Your task to perform on an android device: stop showing notifications on the lock screen Image 0: 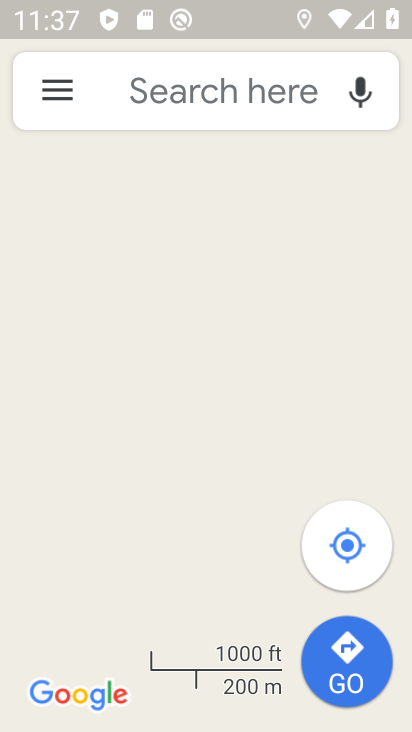
Step 0: press home button
Your task to perform on an android device: stop showing notifications on the lock screen Image 1: 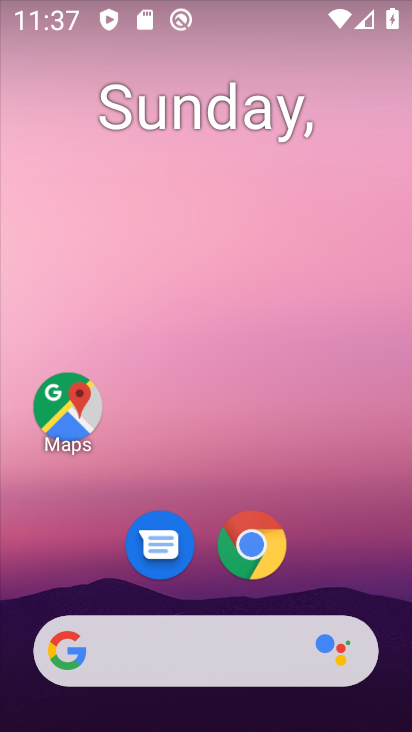
Step 1: drag from (362, 570) to (368, 126)
Your task to perform on an android device: stop showing notifications on the lock screen Image 2: 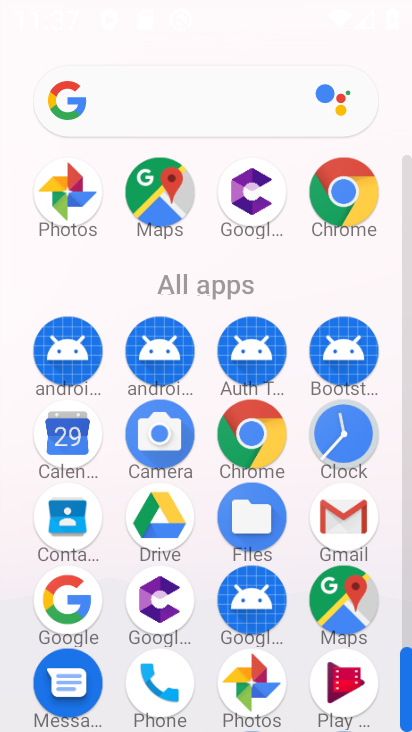
Step 2: drag from (203, 529) to (202, 248)
Your task to perform on an android device: stop showing notifications on the lock screen Image 3: 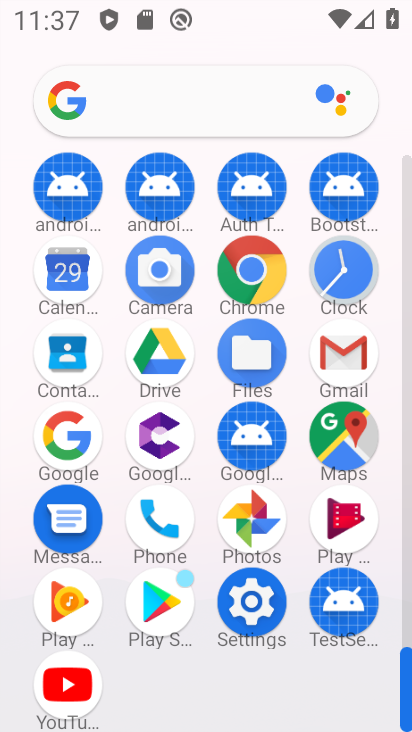
Step 3: click (254, 621)
Your task to perform on an android device: stop showing notifications on the lock screen Image 4: 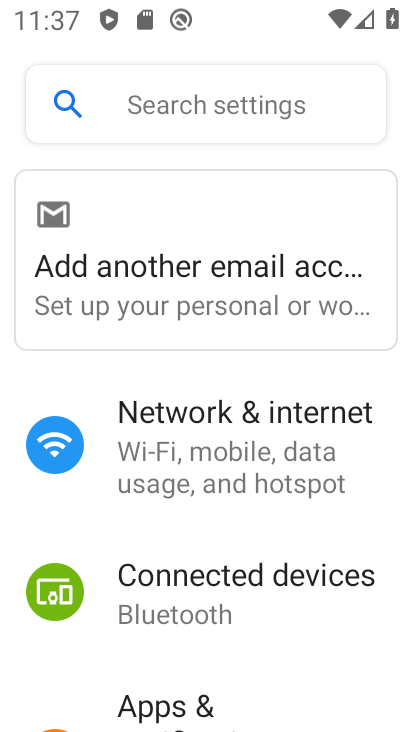
Step 4: drag from (281, 645) to (280, 463)
Your task to perform on an android device: stop showing notifications on the lock screen Image 5: 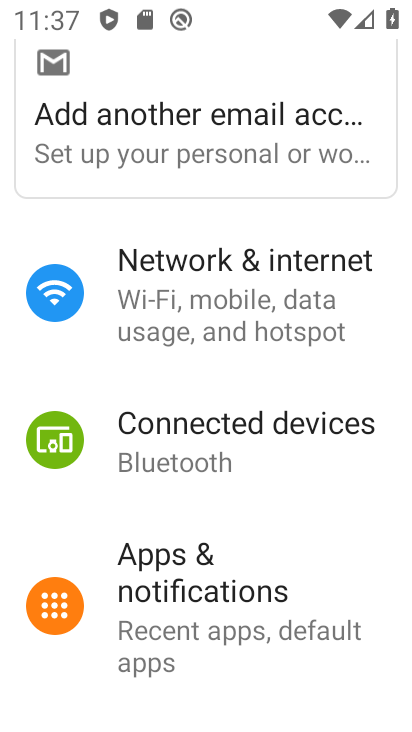
Step 5: drag from (297, 583) to (313, 434)
Your task to perform on an android device: stop showing notifications on the lock screen Image 6: 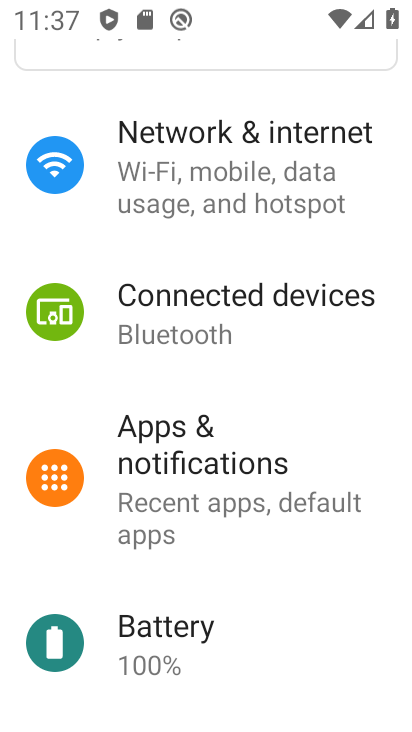
Step 6: click (299, 491)
Your task to perform on an android device: stop showing notifications on the lock screen Image 7: 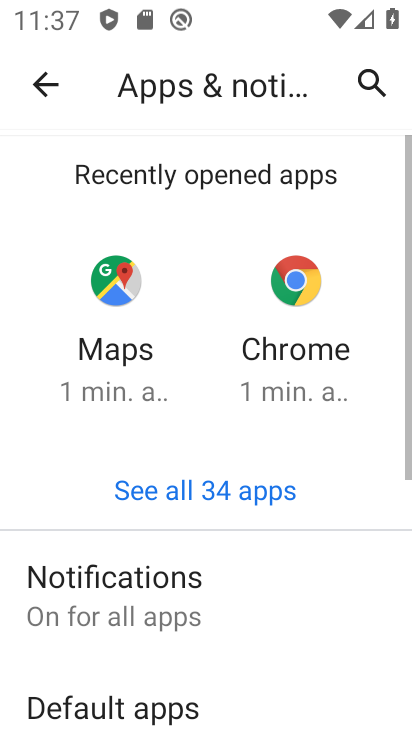
Step 7: drag from (312, 581) to (304, 287)
Your task to perform on an android device: stop showing notifications on the lock screen Image 8: 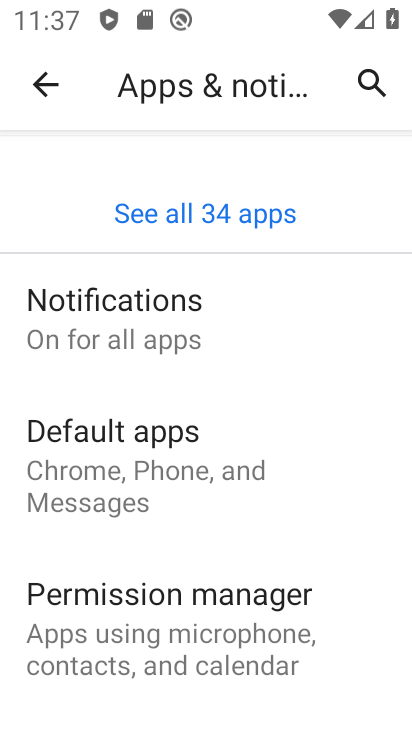
Step 8: drag from (334, 489) to (341, 329)
Your task to perform on an android device: stop showing notifications on the lock screen Image 9: 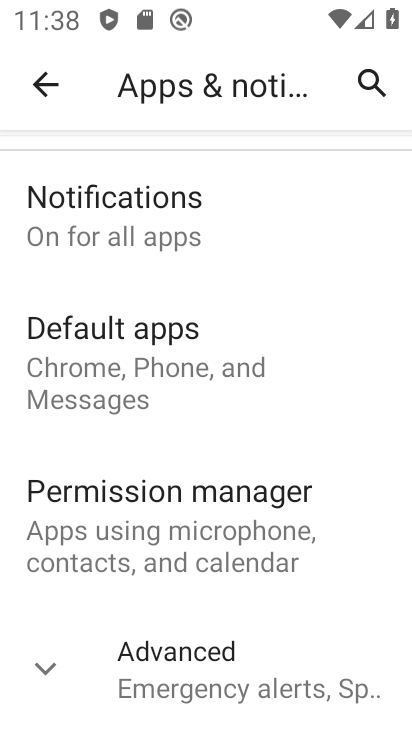
Step 9: click (178, 227)
Your task to perform on an android device: stop showing notifications on the lock screen Image 10: 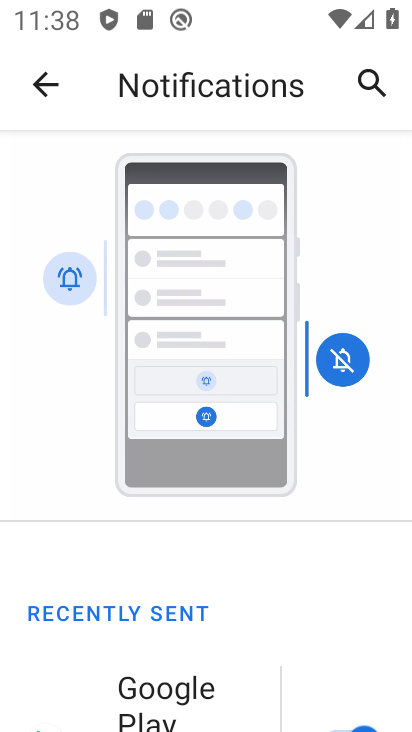
Step 10: drag from (282, 578) to (271, 365)
Your task to perform on an android device: stop showing notifications on the lock screen Image 11: 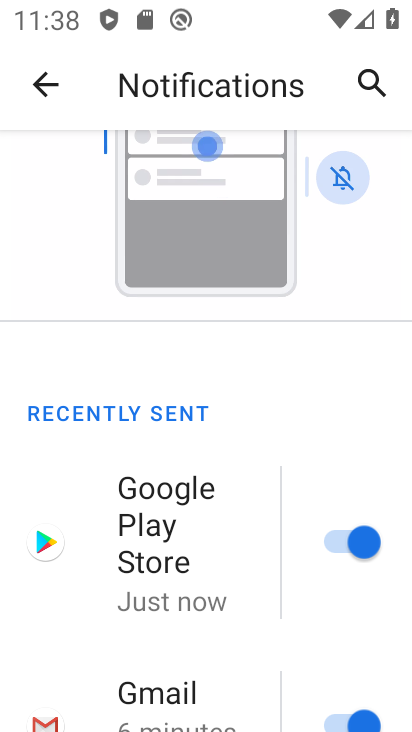
Step 11: drag from (230, 569) to (230, 319)
Your task to perform on an android device: stop showing notifications on the lock screen Image 12: 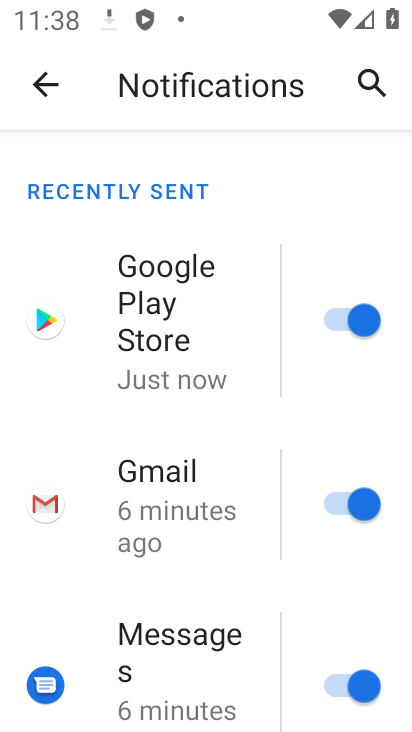
Step 12: drag from (217, 605) to (217, 375)
Your task to perform on an android device: stop showing notifications on the lock screen Image 13: 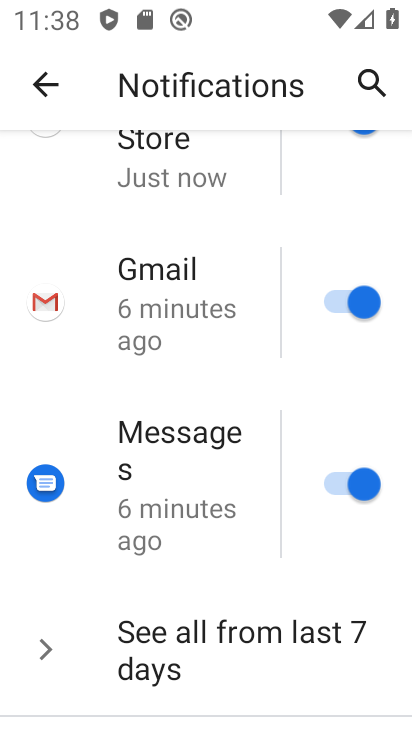
Step 13: drag from (238, 656) to (248, 485)
Your task to perform on an android device: stop showing notifications on the lock screen Image 14: 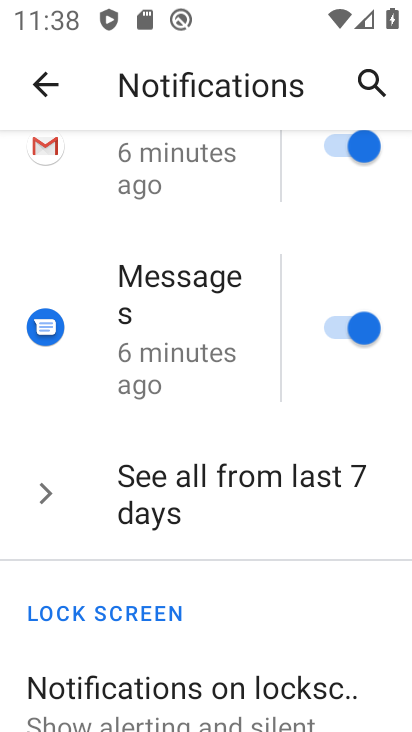
Step 14: drag from (262, 613) to (260, 409)
Your task to perform on an android device: stop showing notifications on the lock screen Image 15: 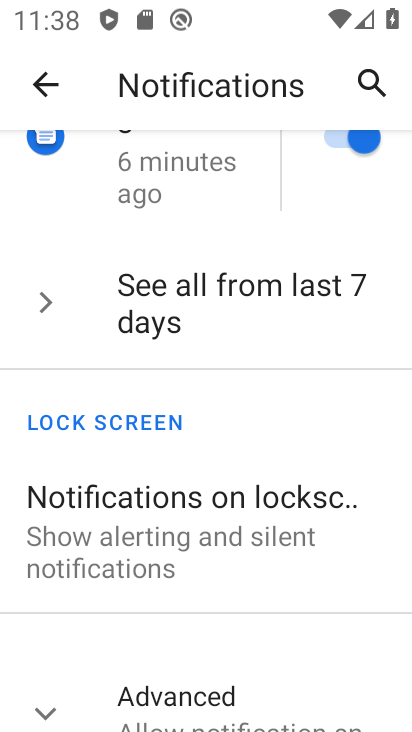
Step 15: click (244, 523)
Your task to perform on an android device: stop showing notifications on the lock screen Image 16: 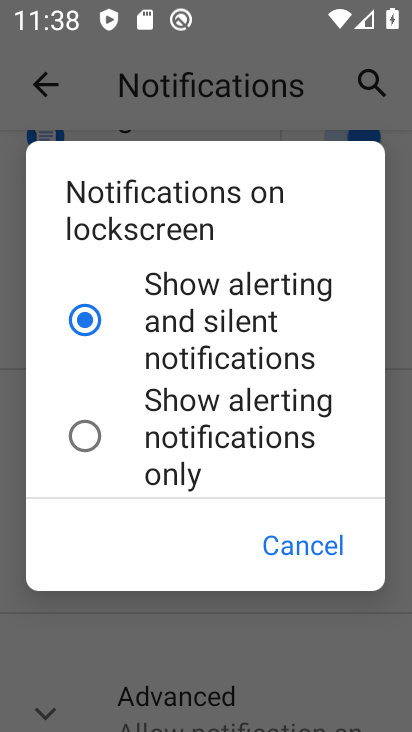
Step 16: drag from (221, 462) to (231, 226)
Your task to perform on an android device: stop showing notifications on the lock screen Image 17: 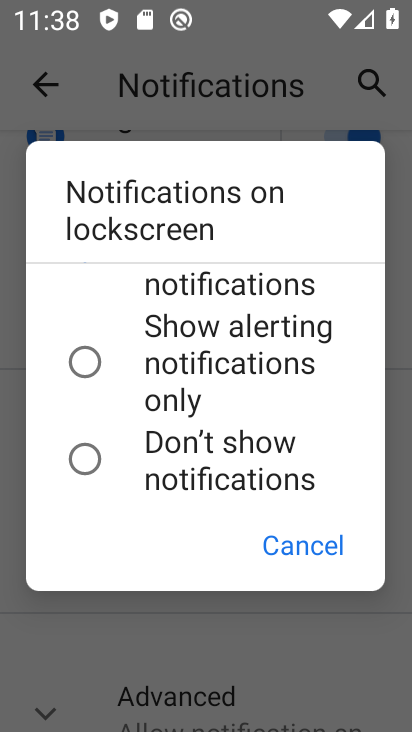
Step 17: click (213, 463)
Your task to perform on an android device: stop showing notifications on the lock screen Image 18: 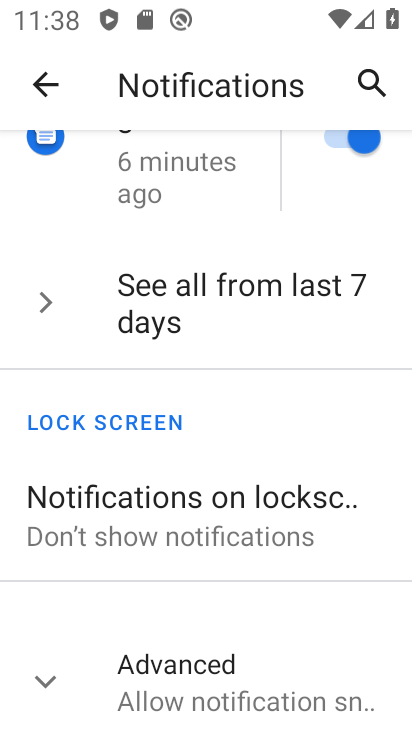
Step 18: task complete